Your task to perform on an android device: What's the weather today? Image 0: 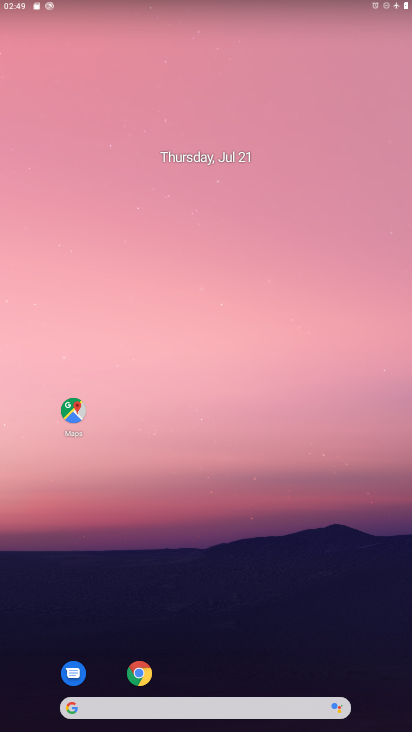
Step 0: drag from (248, 603) to (247, 509)
Your task to perform on an android device: What's the weather today? Image 1: 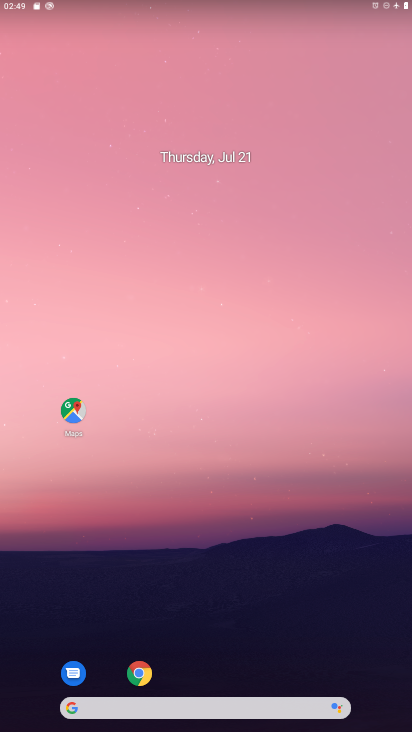
Step 1: drag from (213, 539) to (209, 167)
Your task to perform on an android device: What's the weather today? Image 2: 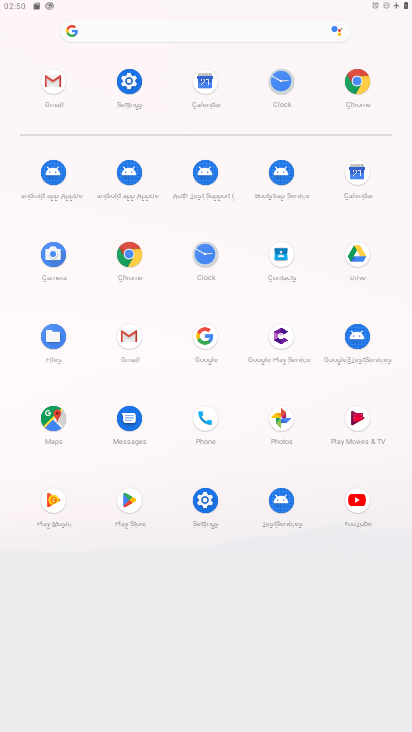
Step 2: click (361, 69)
Your task to perform on an android device: What's the weather today? Image 3: 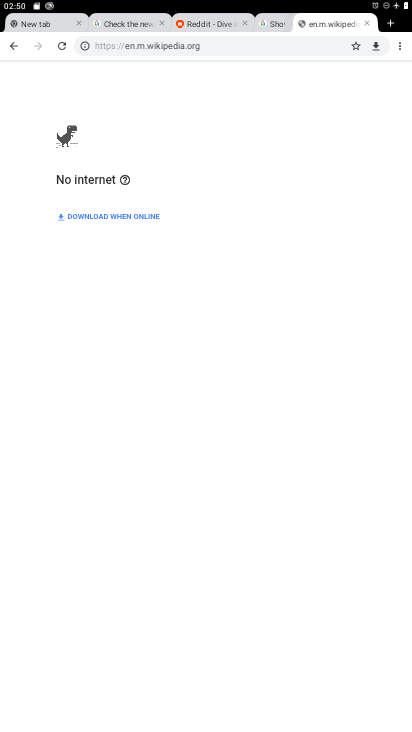
Step 3: click (369, 19)
Your task to perform on an android device: What's the weather today? Image 4: 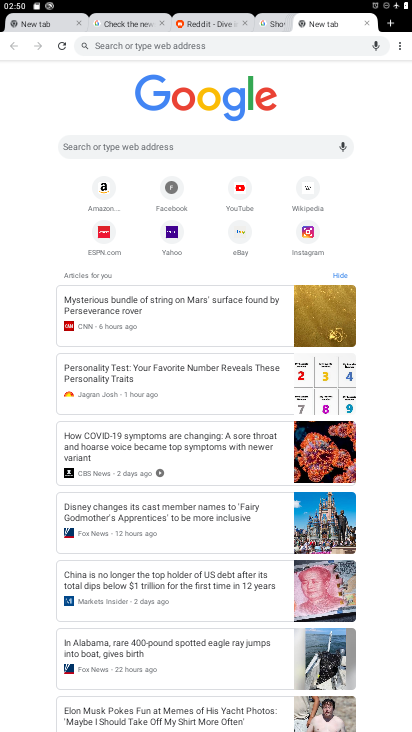
Step 4: click (245, 145)
Your task to perform on an android device: What's the weather today? Image 5: 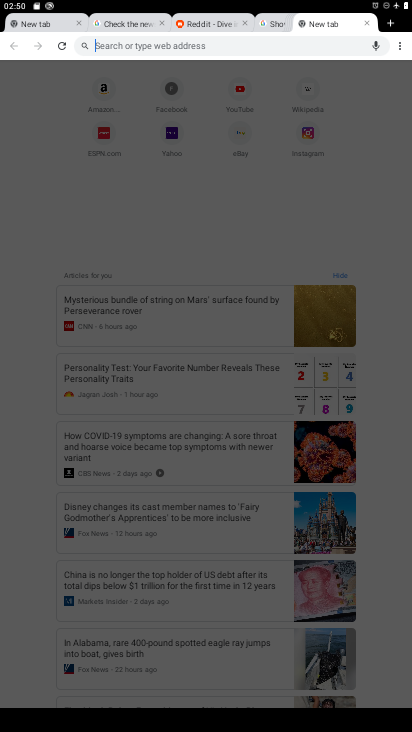
Step 5: type "What's the weather today "
Your task to perform on an android device: What's the weather today? Image 6: 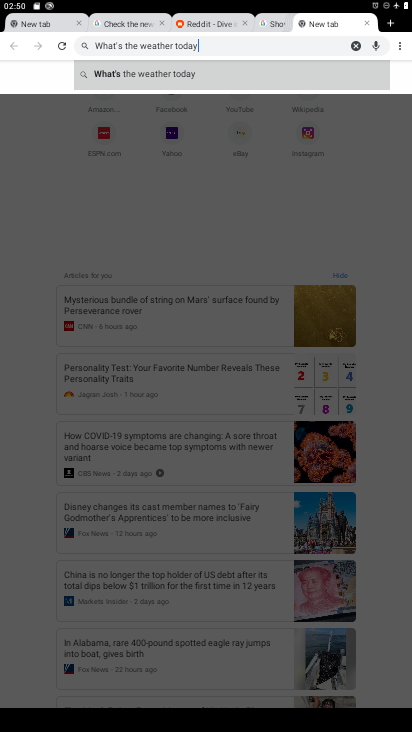
Step 6: click (159, 79)
Your task to perform on an android device: What's the weather today? Image 7: 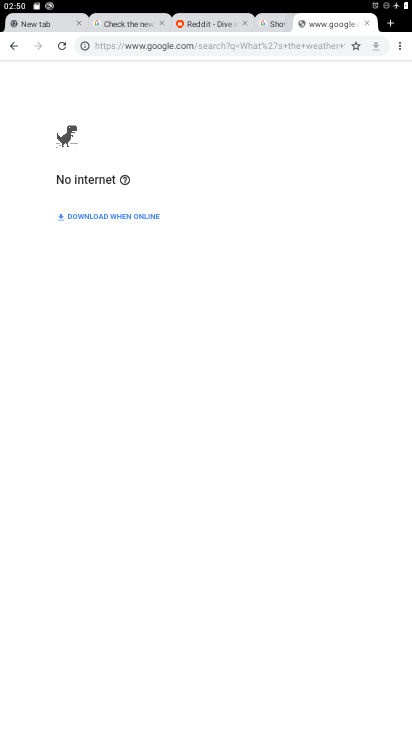
Step 7: task complete